Your task to perform on an android device: delete browsing data in the chrome app Image 0: 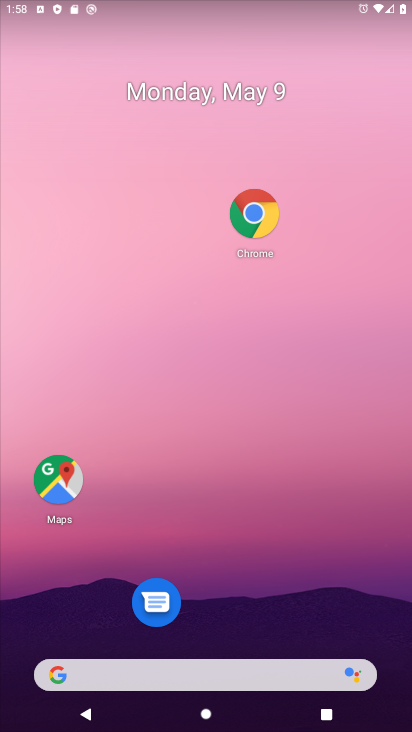
Step 0: click (278, 594)
Your task to perform on an android device: delete browsing data in the chrome app Image 1: 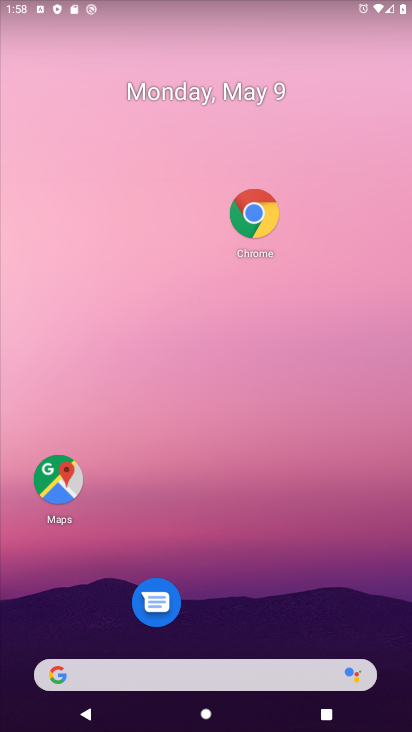
Step 1: click (258, 221)
Your task to perform on an android device: delete browsing data in the chrome app Image 2: 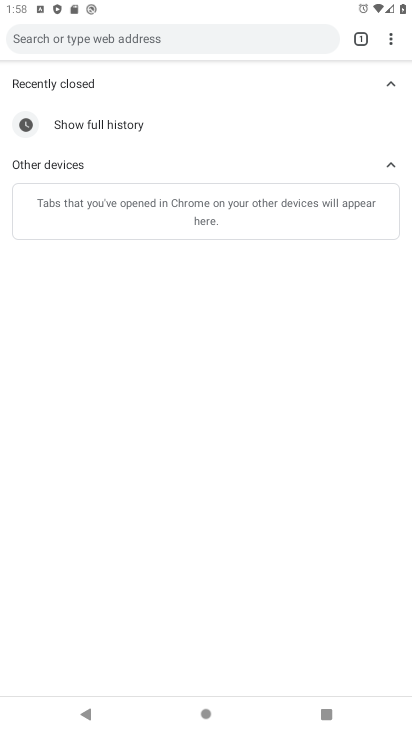
Step 2: click (398, 38)
Your task to perform on an android device: delete browsing data in the chrome app Image 3: 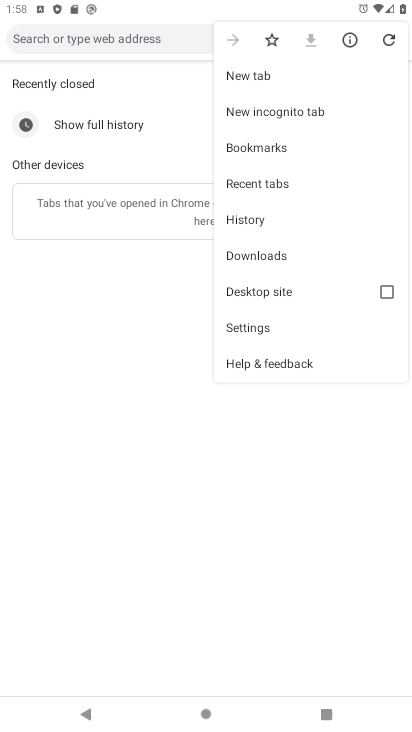
Step 3: click (274, 334)
Your task to perform on an android device: delete browsing data in the chrome app Image 4: 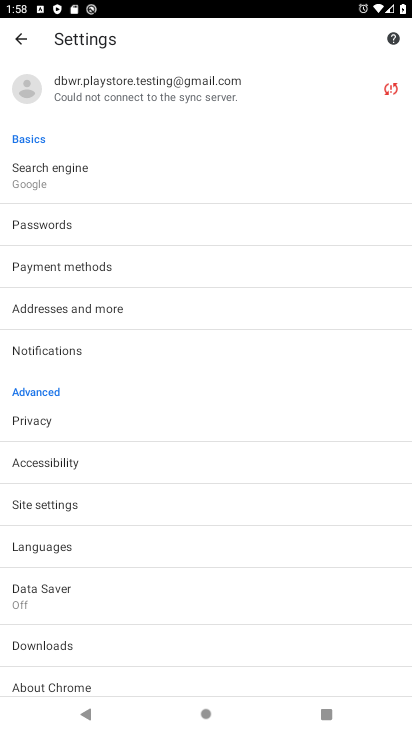
Step 4: click (23, 56)
Your task to perform on an android device: delete browsing data in the chrome app Image 5: 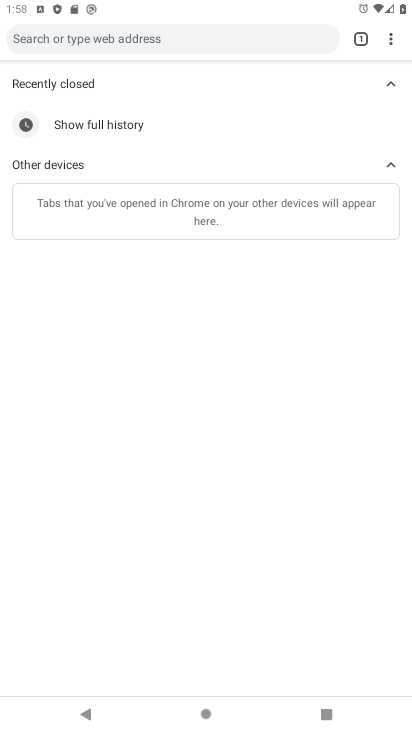
Step 5: click (386, 44)
Your task to perform on an android device: delete browsing data in the chrome app Image 6: 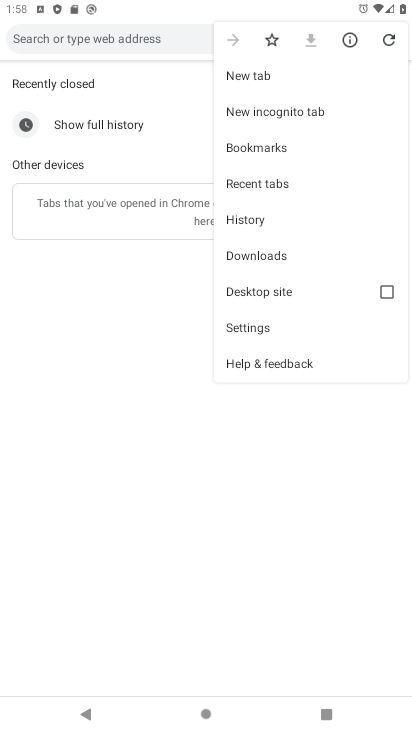
Step 6: click (254, 215)
Your task to perform on an android device: delete browsing data in the chrome app Image 7: 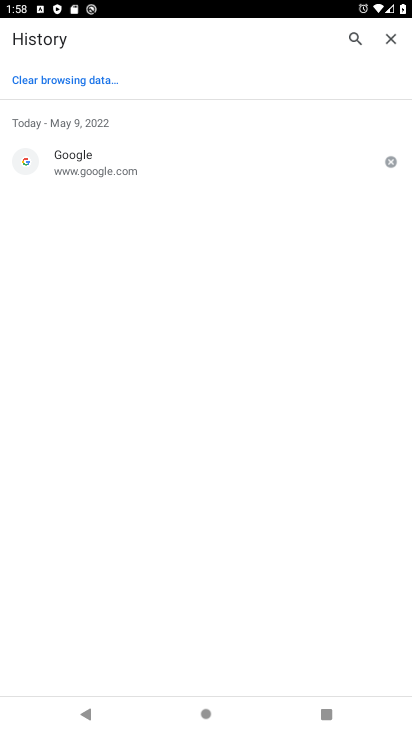
Step 7: click (78, 74)
Your task to perform on an android device: delete browsing data in the chrome app Image 8: 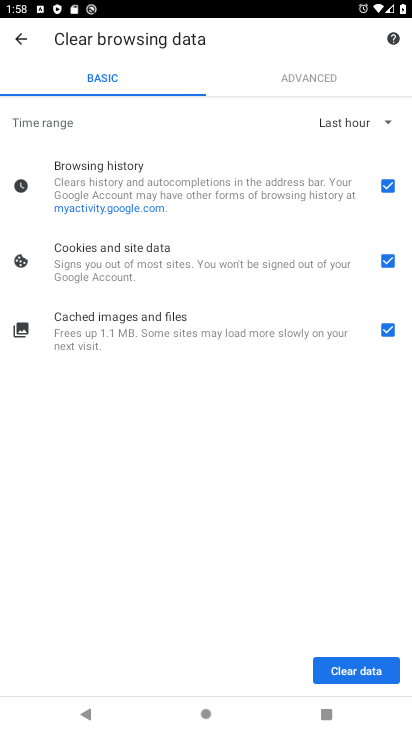
Step 8: click (356, 675)
Your task to perform on an android device: delete browsing data in the chrome app Image 9: 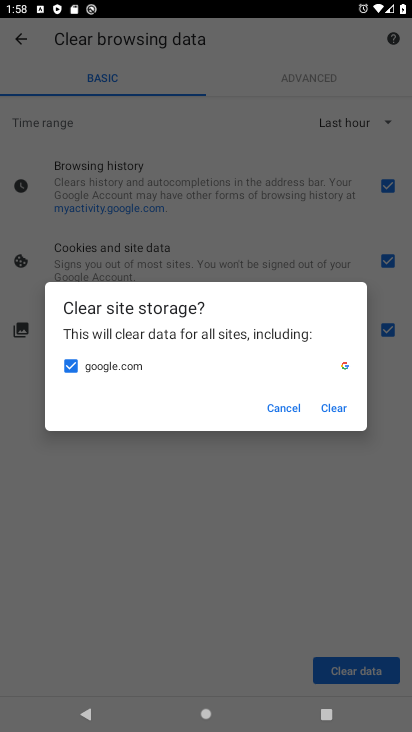
Step 9: click (332, 406)
Your task to perform on an android device: delete browsing data in the chrome app Image 10: 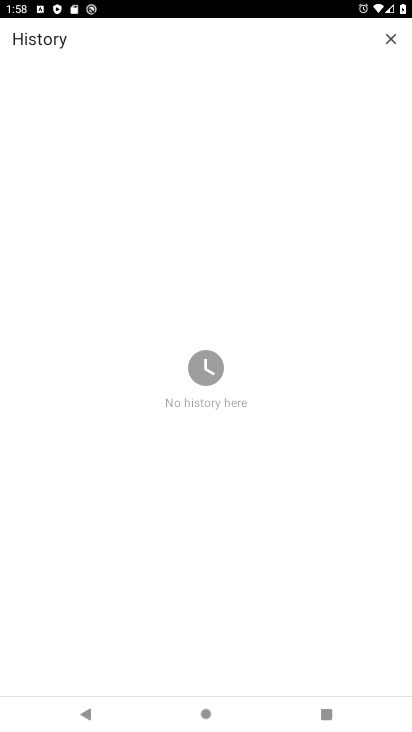
Step 10: task complete